Your task to perform on an android device: uninstall "Pinterest" Image 0: 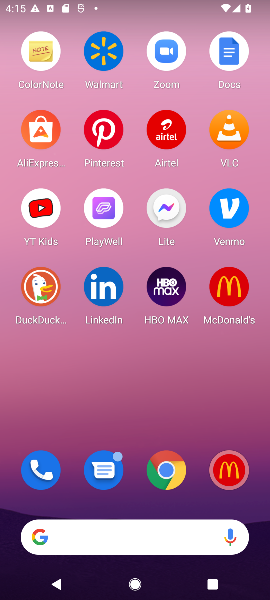
Step 0: drag from (123, 442) to (105, 128)
Your task to perform on an android device: uninstall "Pinterest" Image 1: 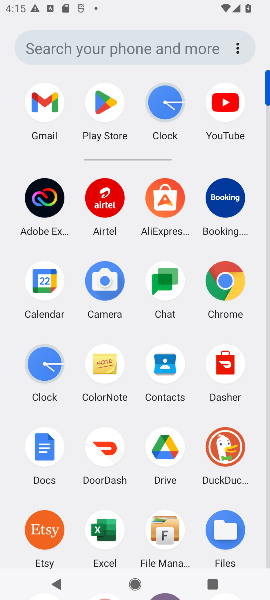
Step 1: click (110, 100)
Your task to perform on an android device: uninstall "Pinterest" Image 2: 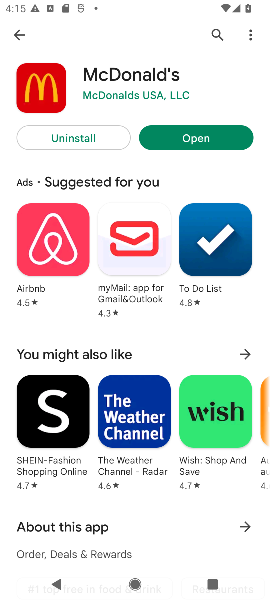
Step 2: click (12, 34)
Your task to perform on an android device: uninstall "Pinterest" Image 3: 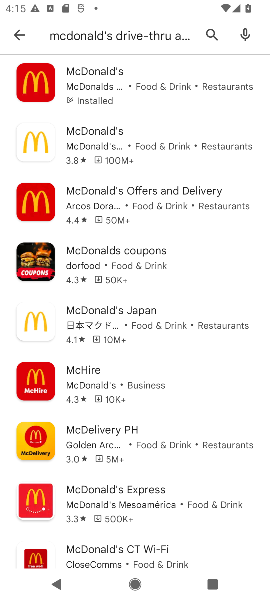
Step 3: click (29, 36)
Your task to perform on an android device: uninstall "Pinterest" Image 4: 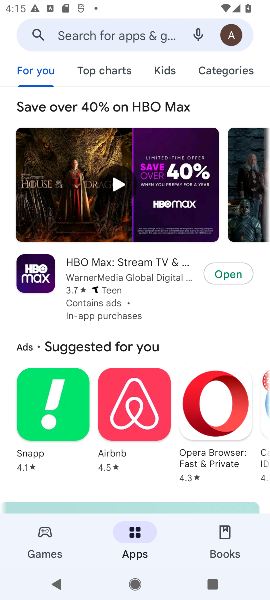
Step 4: click (99, 19)
Your task to perform on an android device: uninstall "Pinterest" Image 5: 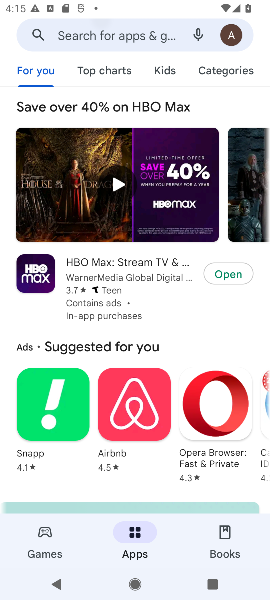
Step 5: click (104, 30)
Your task to perform on an android device: uninstall "Pinterest" Image 6: 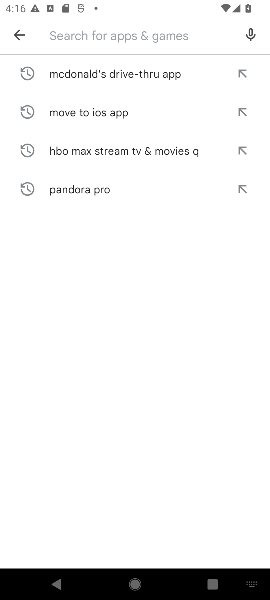
Step 6: type "Pinterest "
Your task to perform on an android device: uninstall "Pinterest" Image 7: 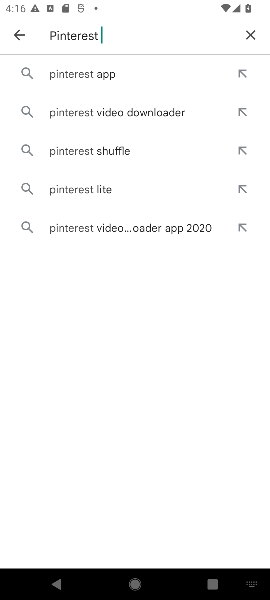
Step 7: click (103, 74)
Your task to perform on an android device: uninstall "Pinterest" Image 8: 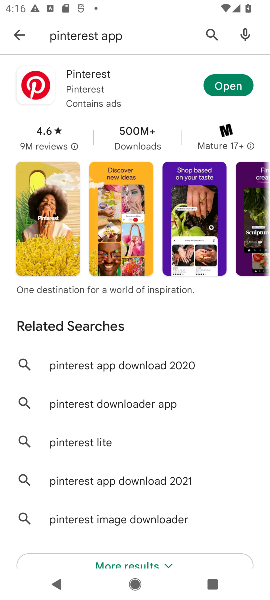
Step 8: click (137, 85)
Your task to perform on an android device: uninstall "Pinterest" Image 9: 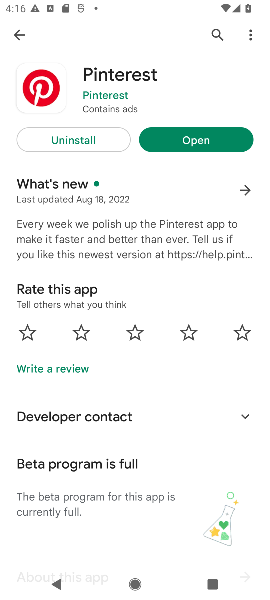
Step 9: click (79, 138)
Your task to perform on an android device: uninstall "Pinterest" Image 10: 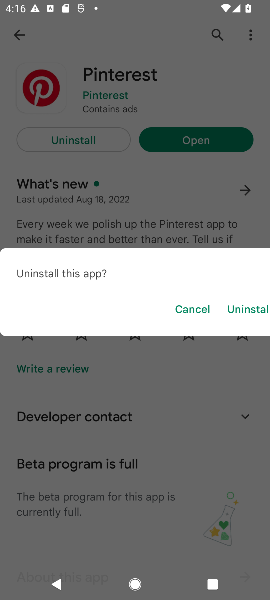
Step 10: click (261, 306)
Your task to perform on an android device: uninstall "Pinterest" Image 11: 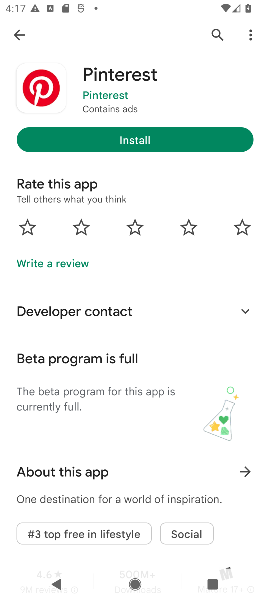
Step 11: task complete